Your task to perform on an android device: uninstall "Booking.com: Hotels and more" Image 0: 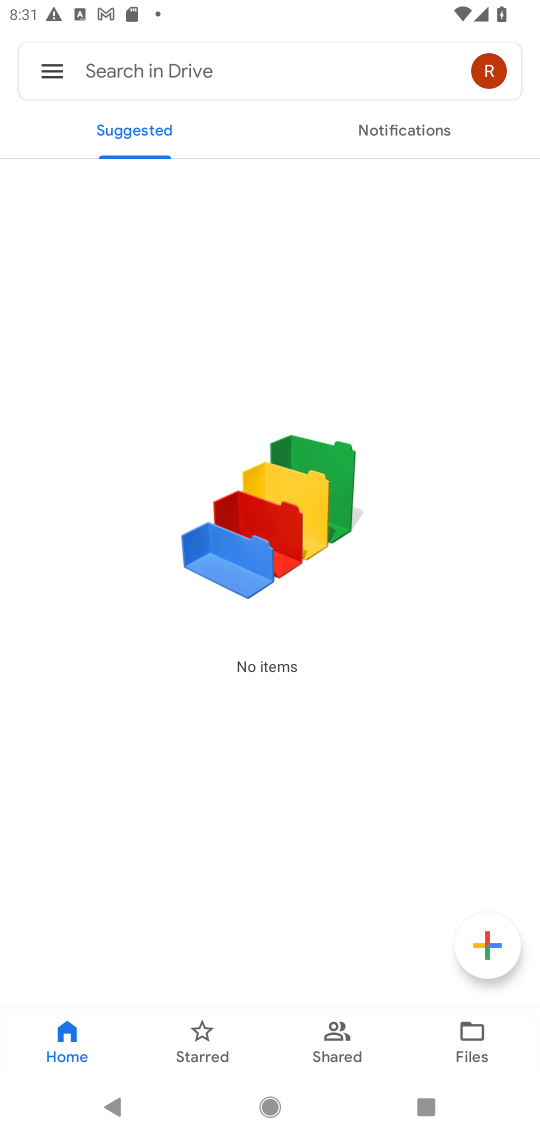
Step 0: press back button
Your task to perform on an android device: uninstall "Booking.com: Hotels and more" Image 1: 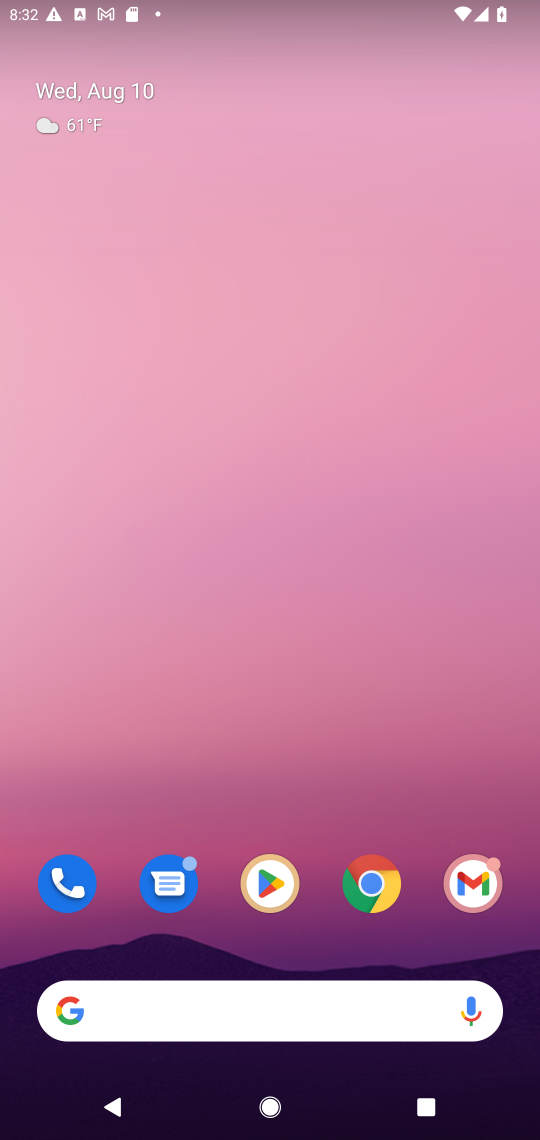
Step 1: click (292, 905)
Your task to perform on an android device: uninstall "Booking.com: Hotels and more" Image 2: 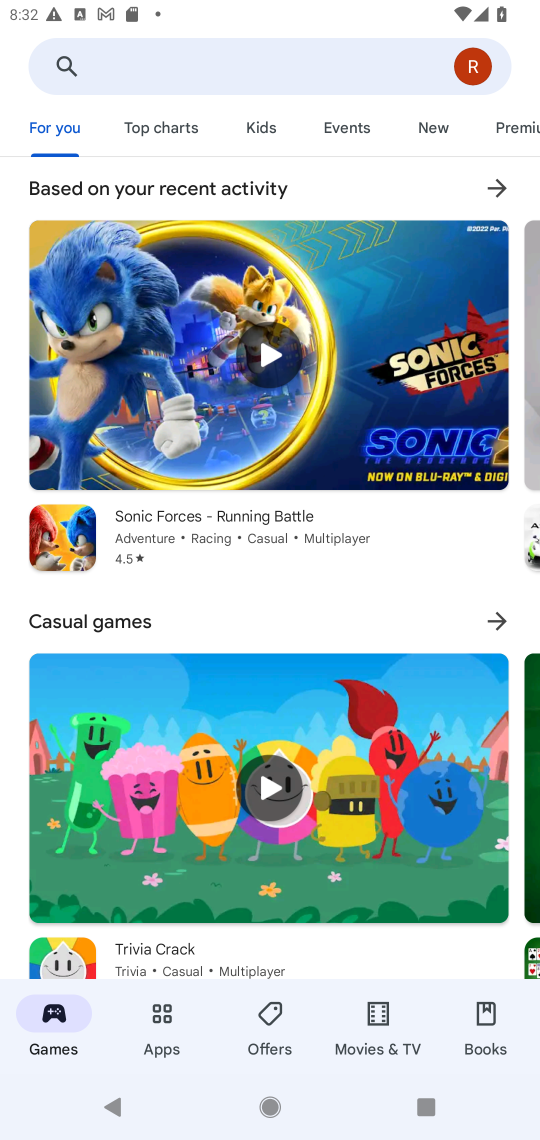
Step 2: click (276, 70)
Your task to perform on an android device: uninstall "Booking.com: Hotels and more" Image 3: 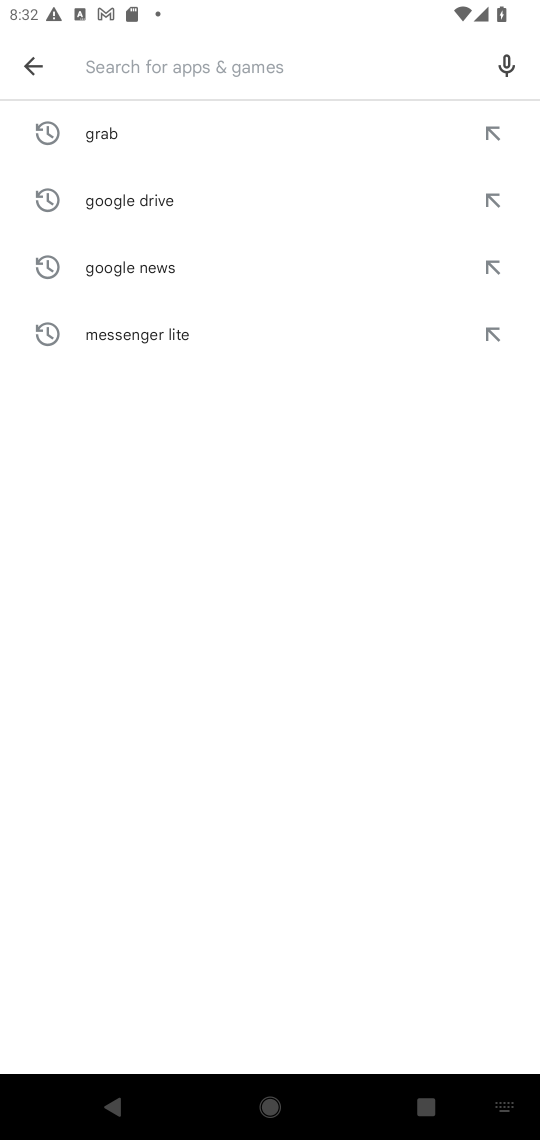
Step 3: type "Booking.com: Hotels and more"
Your task to perform on an android device: uninstall "Booking.com: Hotels and more" Image 4: 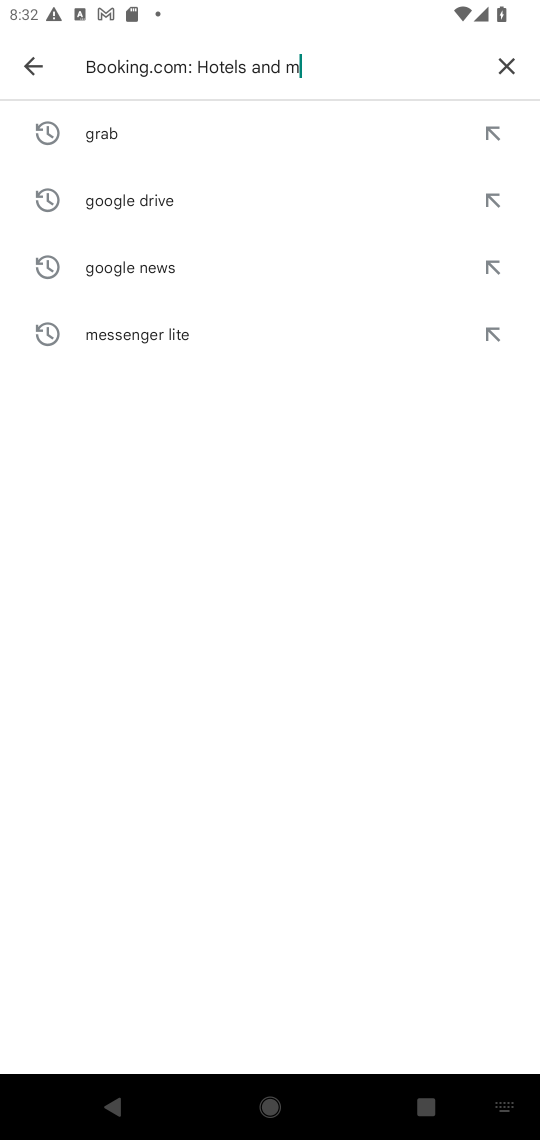
Step 4: type ""
Your task to perform on an android device: uninstall "Booking.com: Hotels and more" Image 5: 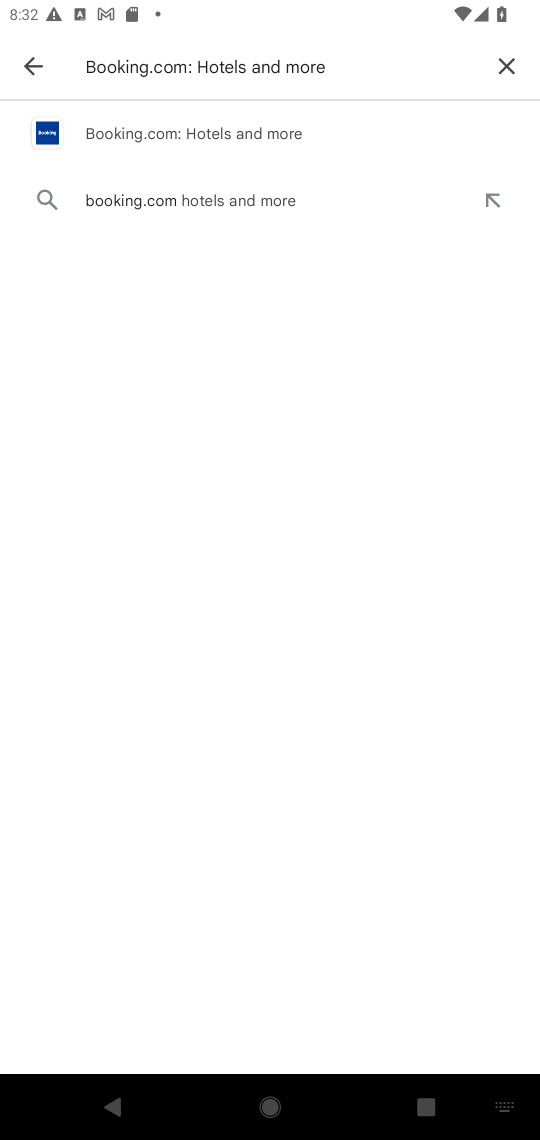
Step 5: click (237, 137)
Your task to perform on an android device: uninstall "Booking.com: Hotels and more" Image 6: 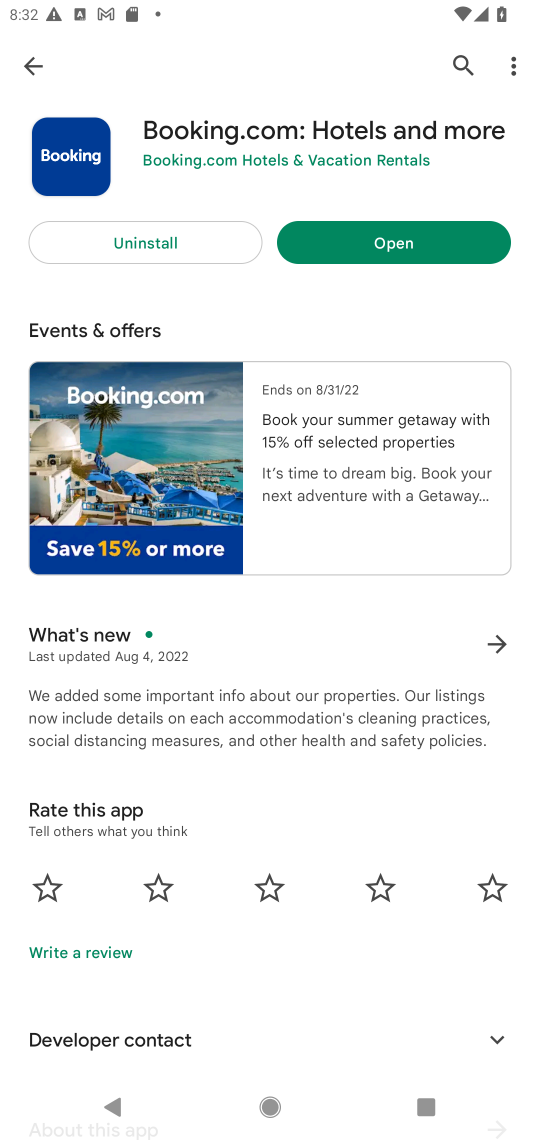
Step 6: click (222, 255)
Your task to perform on an android device: uninstall "Booking.com: Hotels and more" Image 7: 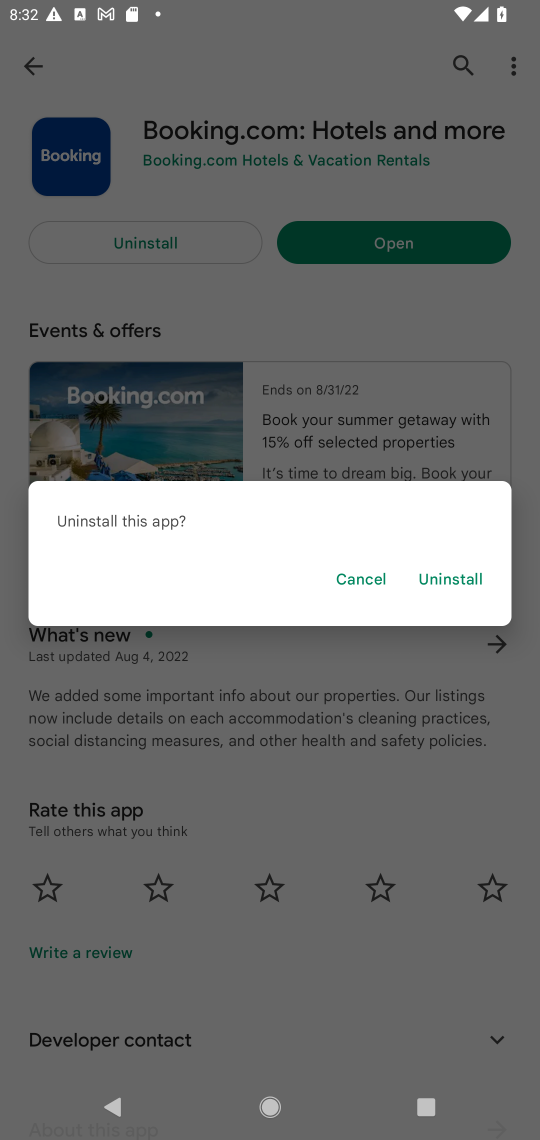
Step 7: click (429, 566)
Your task to perform on an android device: uninstall "Booking.com: Hotels and more" Image 8: 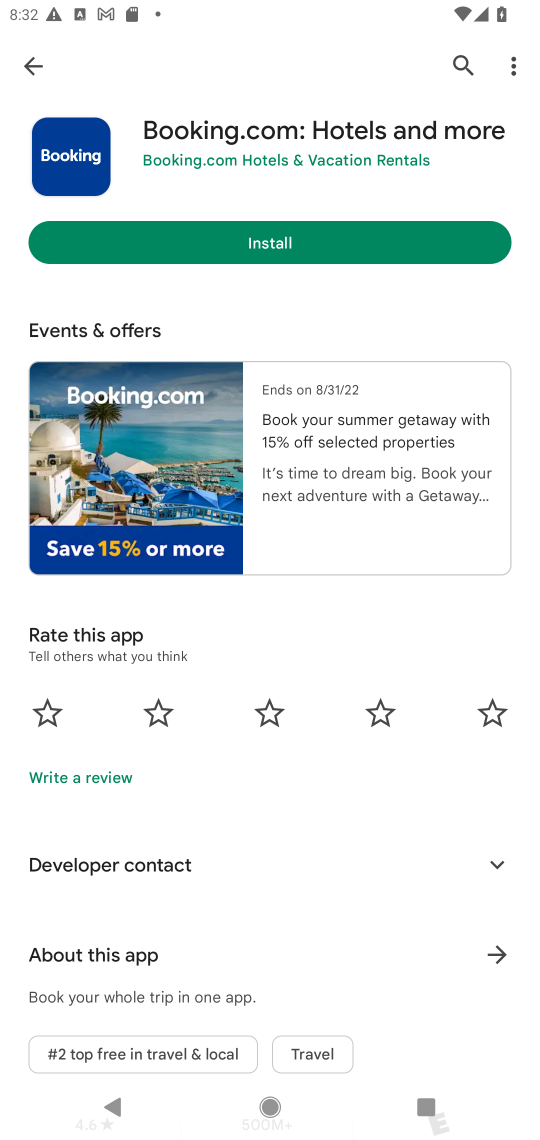
Step 8: task complete